Your task to perform on an android device: see creations saved in the google photos Image 0: 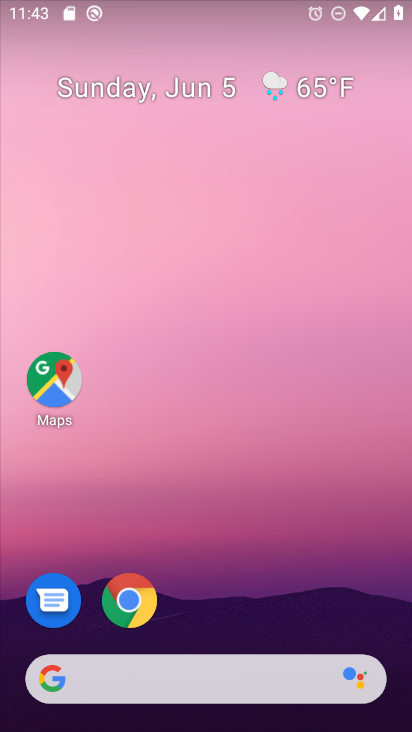
Step 0: drag from (388, 441) to (240, 70)
Your task to perform on an android device: see creations saved in the google photos Image 1: 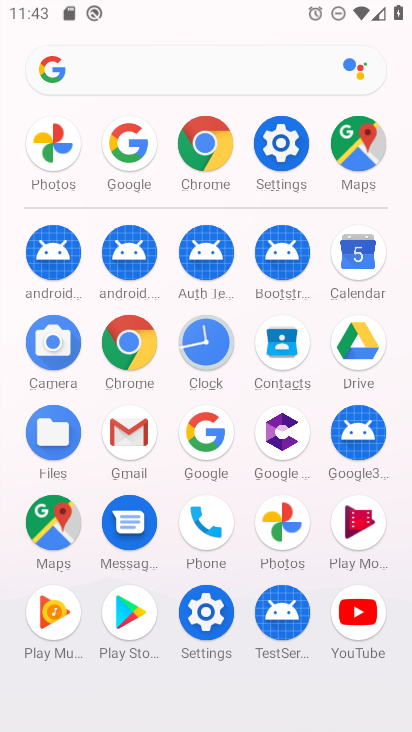
Step 1: click (267, 543)
Your task to perform on an android device: see creations saved in the google photos Image 2: 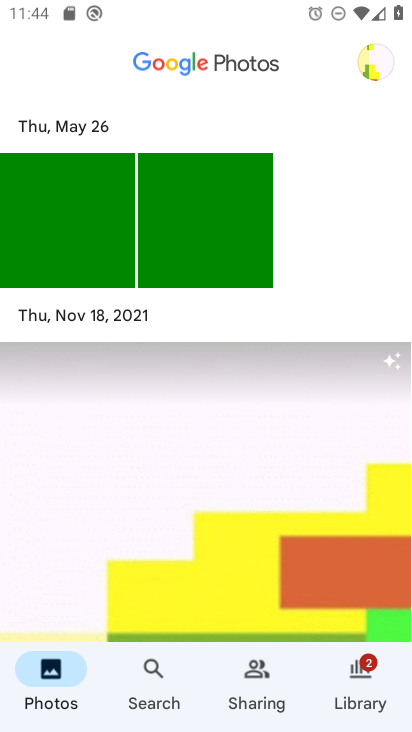
Step 2: click (157, 671)
Your task to perform on an android device: see creations saved in the google photos Image 3: 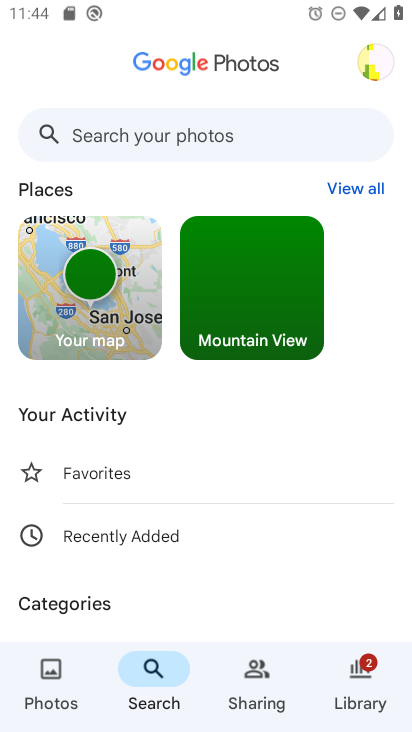
Step 3: drag from (142, 581) to (153, 89)
Your task to perform on an android device: see creations saved in the google photos Image 4: 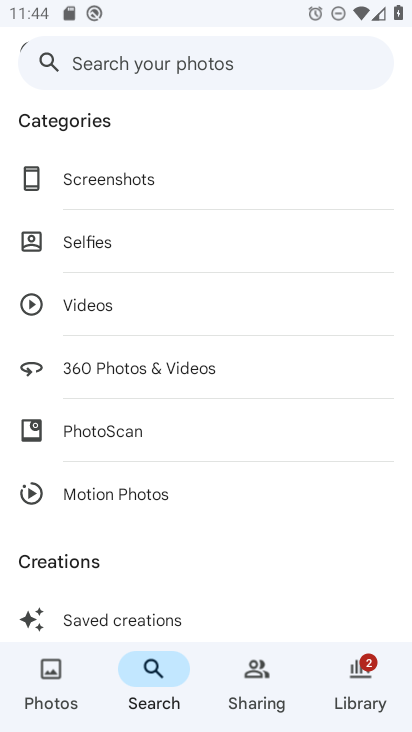
Step 4: click (138, 615)
Your task to perform on an android device: see creations saved in the google photos Image 5: 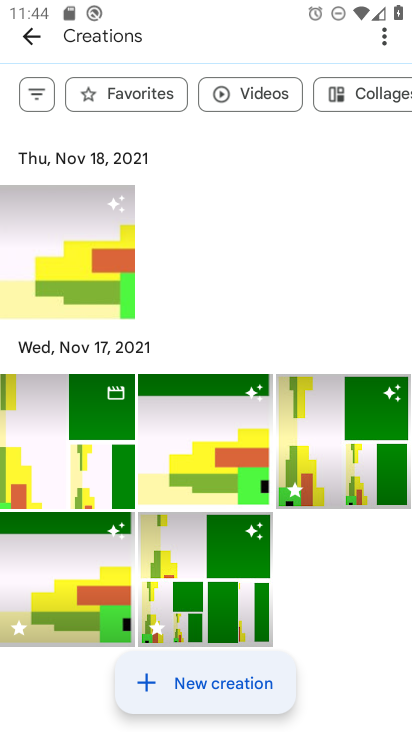
Step 5: task complete